Your task to perform on an android device: toggle pop-ups in chrome Image 0: 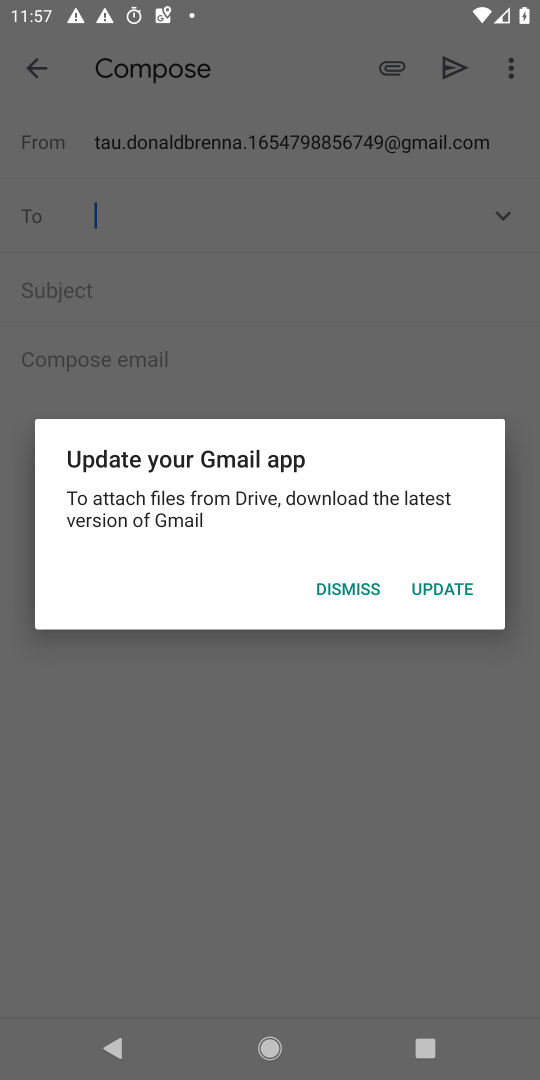
Step 0: press home button
Your task to perform on an android device: toggle pop-ups in chrome Image 1: 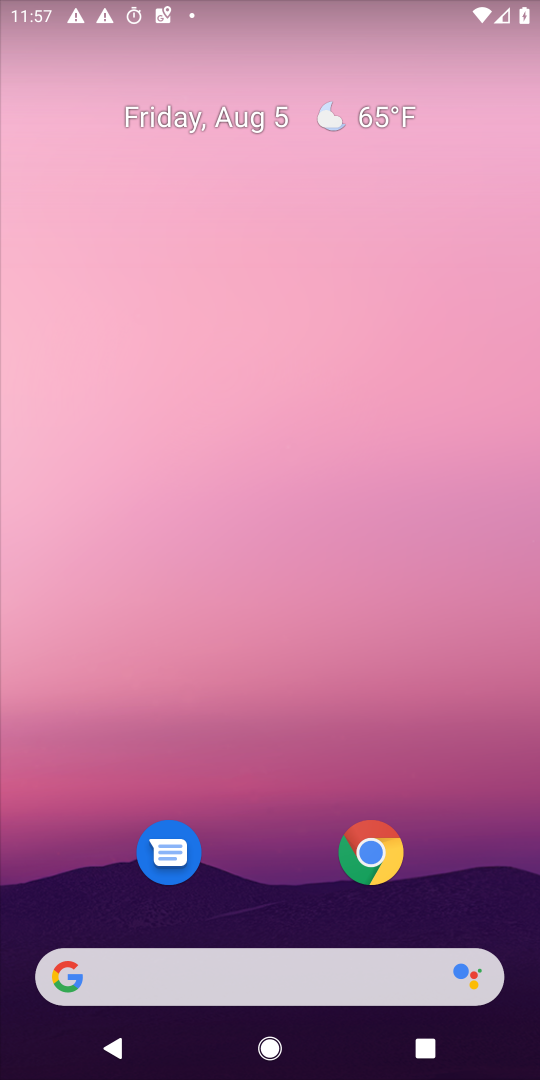
Step 1: drag from (384, 991) to (405, 298)
Your task to perform on an android device: toggle pop-ups in chrome Image 2: 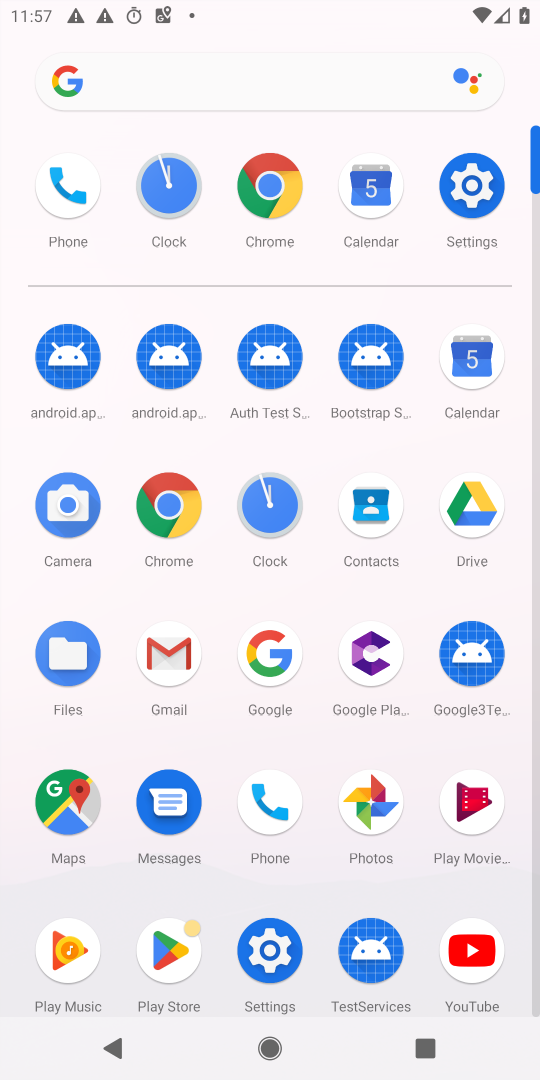
Step 2: click (265, 197)
Your task to perform on an android device: toggle pop-ups in chrome Image 3: 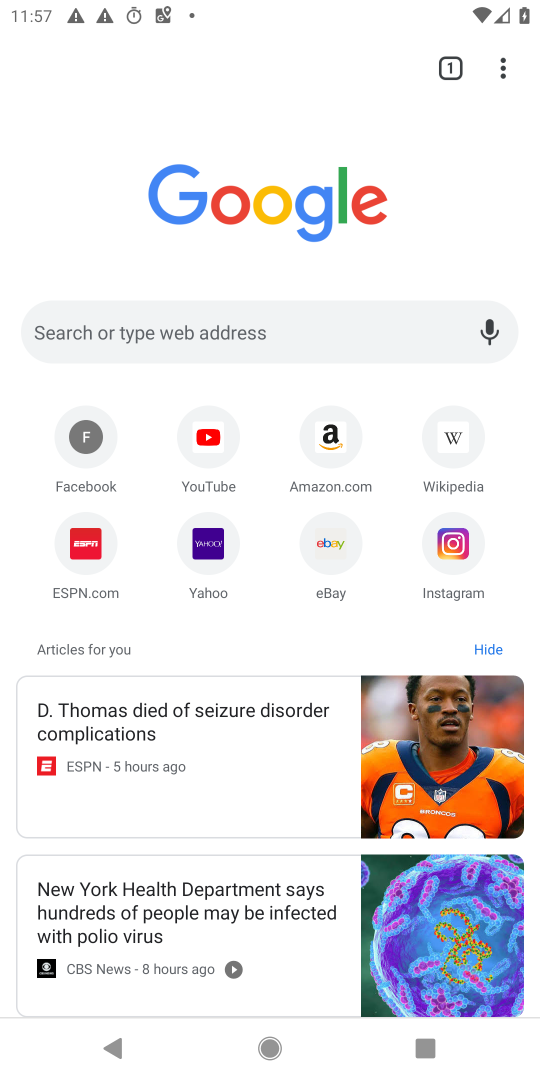
Step 3: click (506, 77)
Your task to perform on an android device: toggle pop-ups in chrome Image 4: 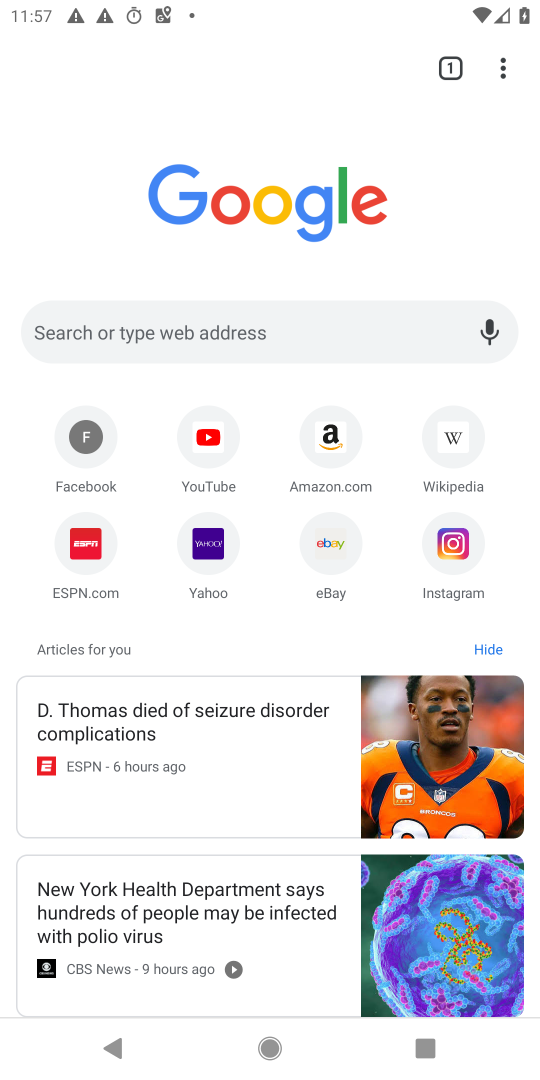
Step 4: click (504, 69)
Your task to perform on an android device: toggle pop-ups in chrome Image 5: 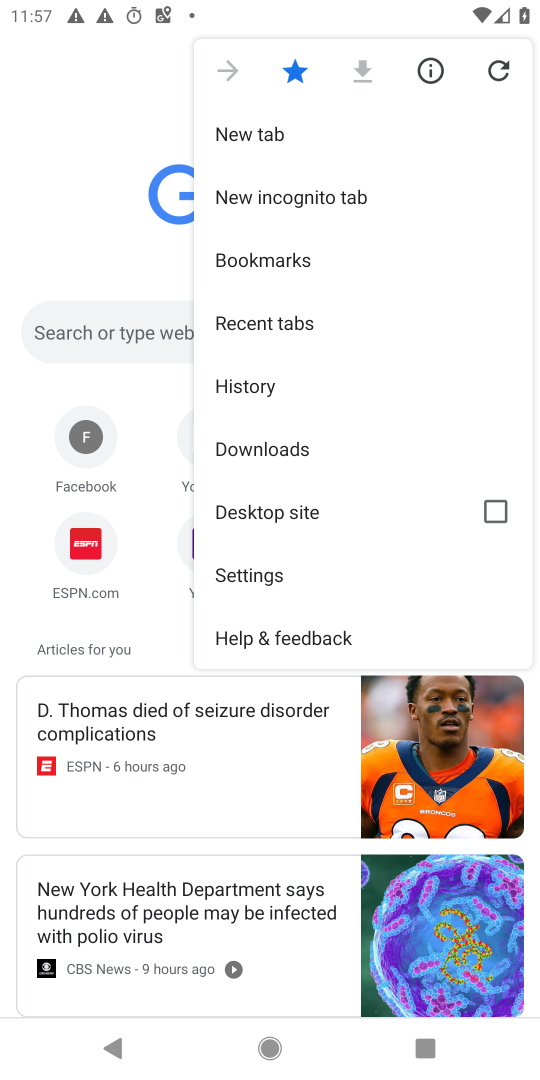
Step 5: click (253, 575)
Your task to perform on an android device: toggle pop-ups in chrome Image 6: 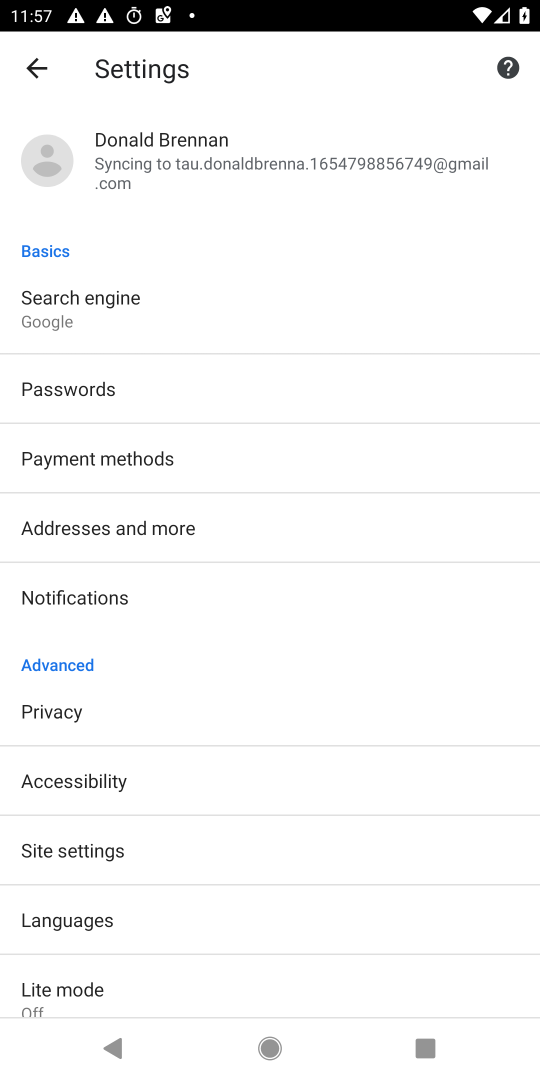
Step 6: click (101, 857)
Your task to perform on an android device: toggle pop-ups in chrome Image 7: 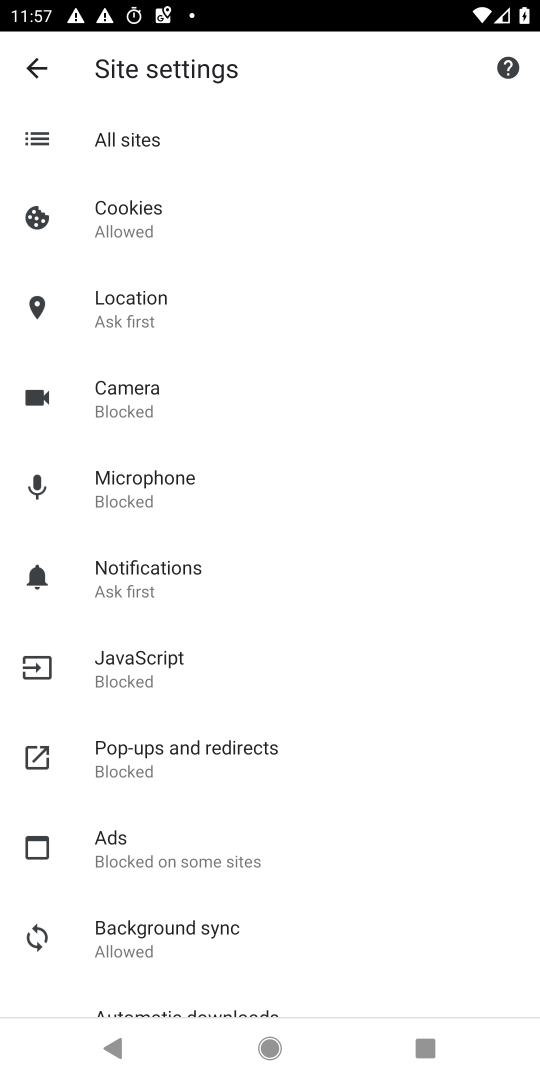
Step 7: click (124, 755)
Your task to perform on an android device: toggle pop-ups in chrome Image 8: 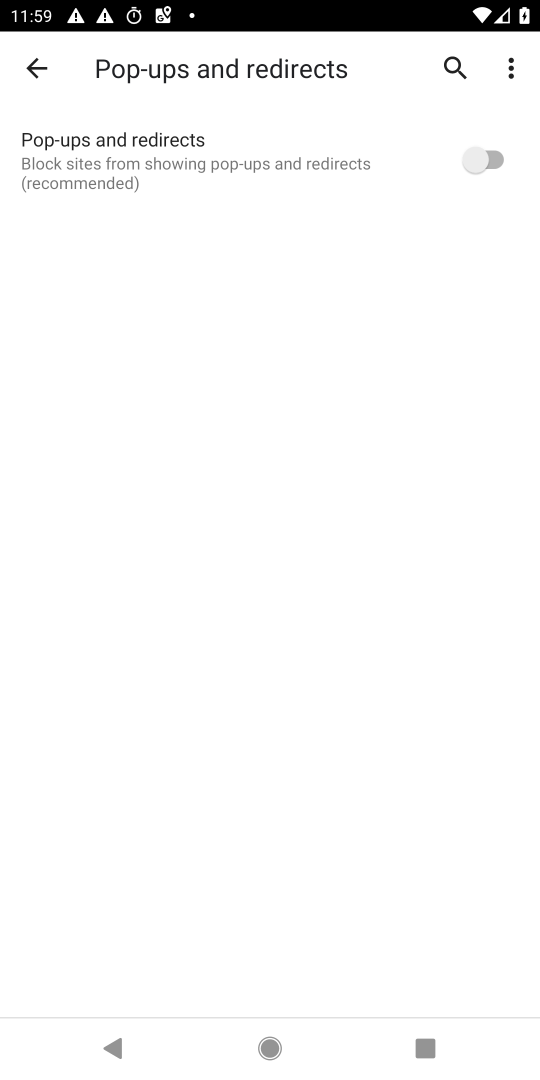
Step 8: task complete